Your task to perform on an android device: toggle notifications settings in the gmail app Image 0: 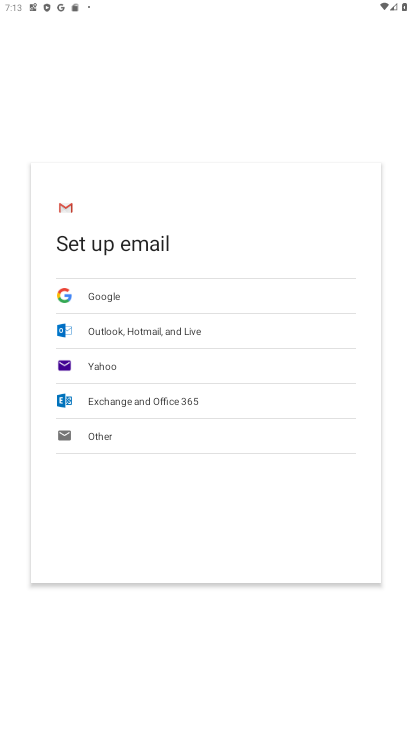
Step 0: press home button
Your task to perform on an android device: toggle notifications settings in the gmail app Image 1: 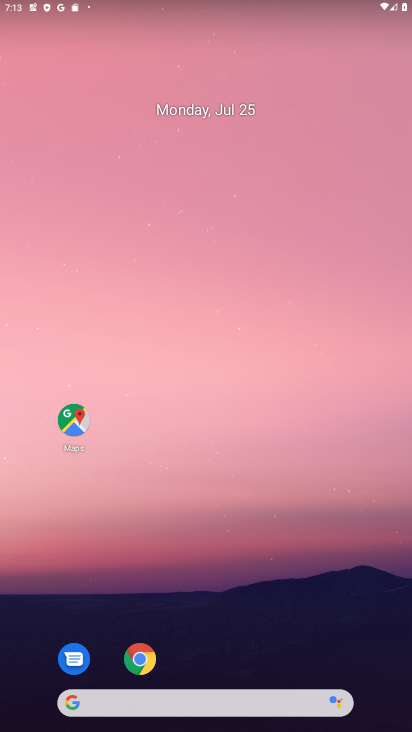
Step 1: drag from (179, 498) to (181, 223)
Your task to perform on an android device: toggle notifications settings in the gmail app Image 2: 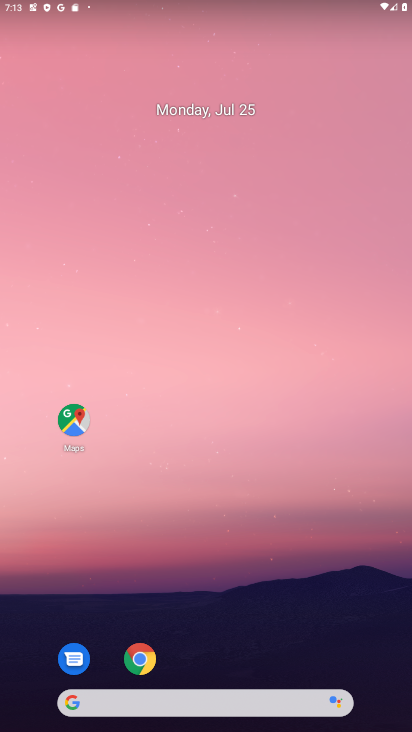
Step 2: drag from (215, 599) to (202, 37)
Your task to perform on an android device: toggle notifications settings in the gmail app Image 3: 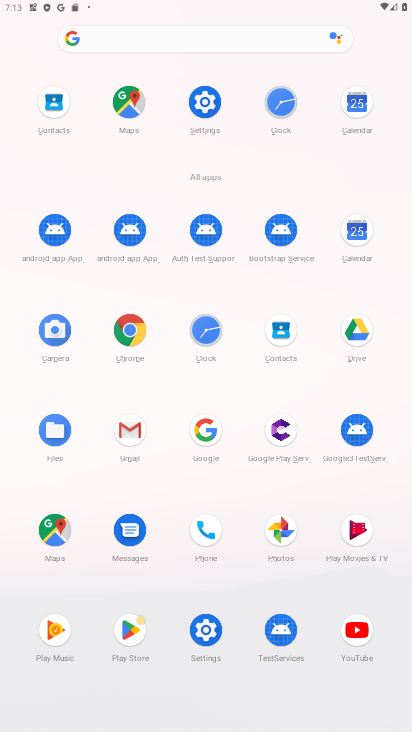
Step 3: click (120, 441)
Your task to perform on an android device: toggle notifications settings in the gmail app Image 4: 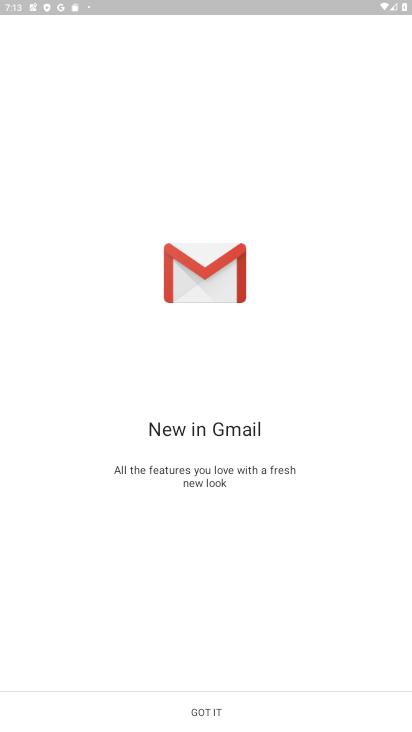
Step 4: click (207, 710)
Your task to perform on an android device: toggle notifications settings in the gmail app Image 5: 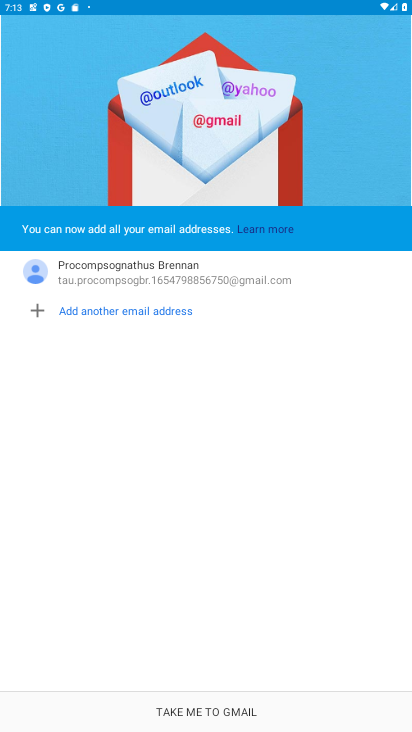
Step 5: click (207, 710)
Your task to perform on an android device: toggle notifications settings in the gmail app Image 6: 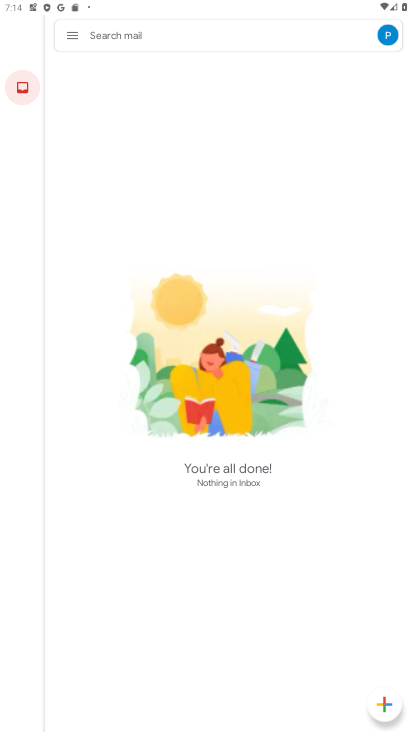
Step 6: click (68, 35)
Your task to perform on an android device: toggle notifications settings in the gmail app Image 7: 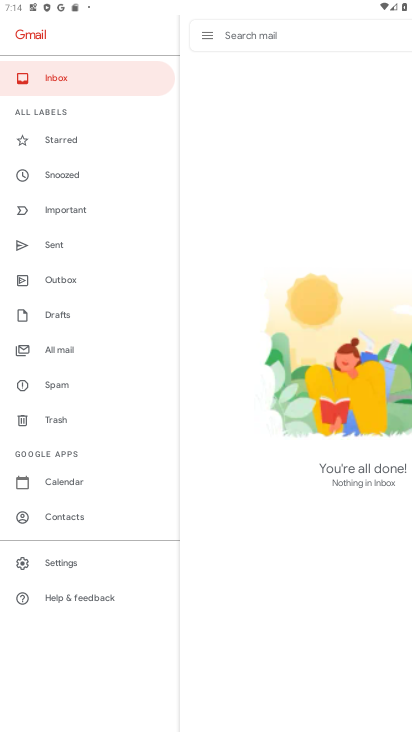
Step 7: click (50, 568)
Your task to perform on an android device: toggle notifications settings in the gmail app Image 8: 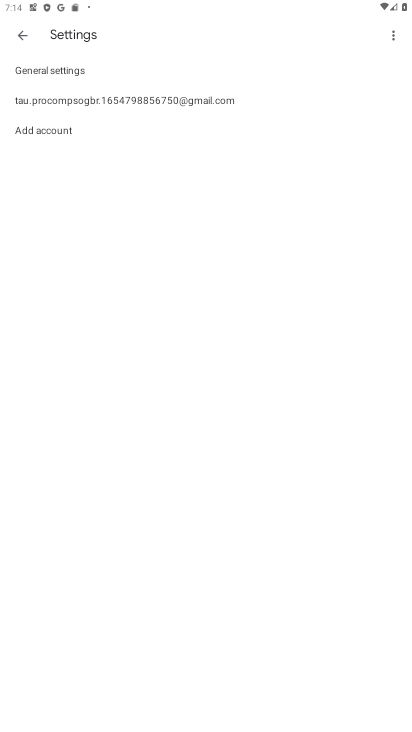
Step 8: click (135, 104)
Your task to perform on an android device: toggle notifications settings in the gmail app Image 9: 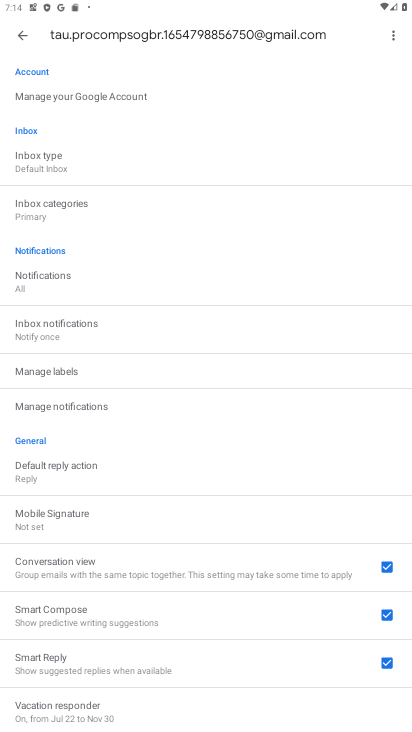
Step 9: click (42, 407)
Your task to perform on an android device: toggle notifications settings in the gmail app Image 10: 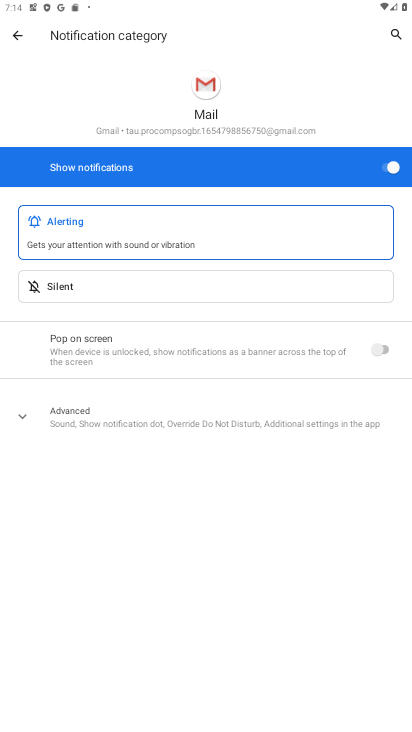
Step 10: click (378, 170)
Your task to perform on an android device: toggle notifications settings in the gmail app Image 11: 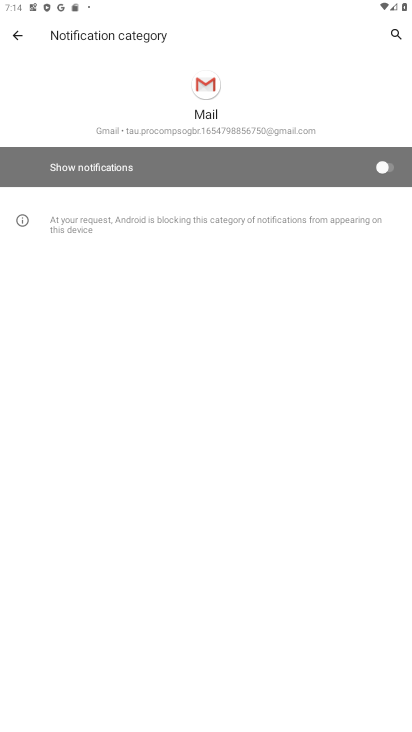
Step 11: task complete